Your task to perform on an android device: Go to settings Image 0: 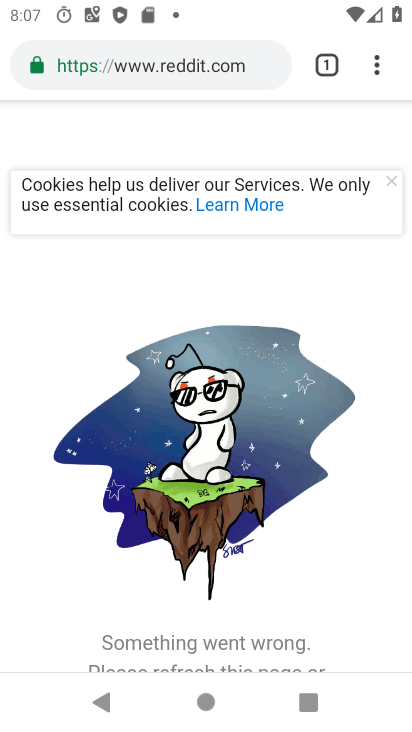
Step 0: press home button
Your task to perform on an android device: Go to settings Image 1: 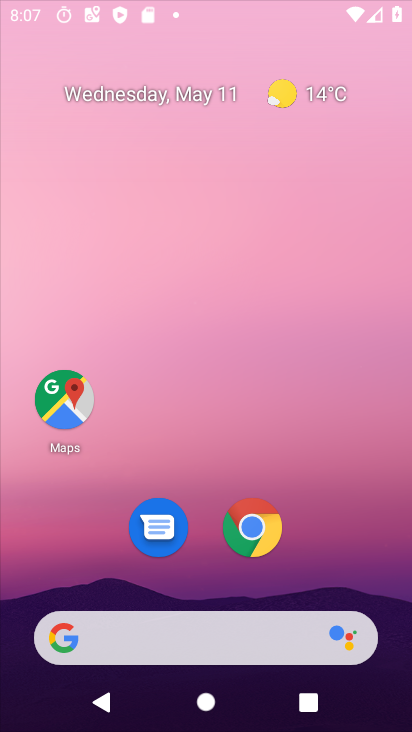
Step 1: drag from (229, 555) to (218, 18)
Your task to perform on an android device: Go to settings Image 2: 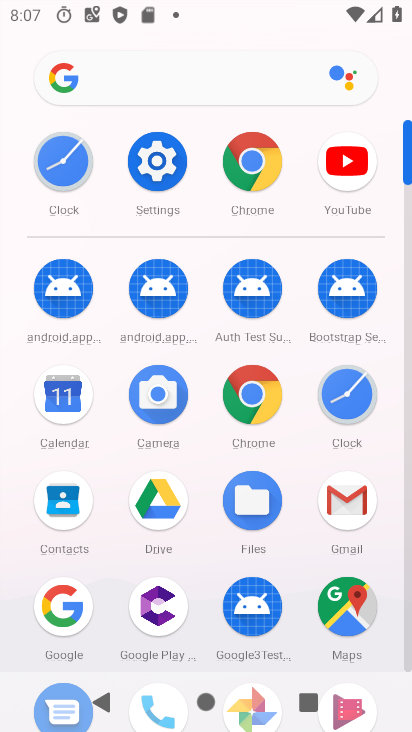
Step 2: click (169, 171)
Your task to perform on an android device: Go to settings Image 3: 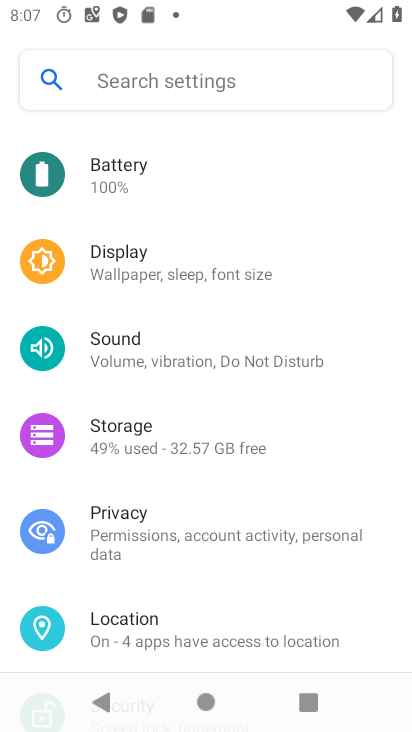
Step 3: task complete